Your task to perform on an android device: turn off location Image 0: 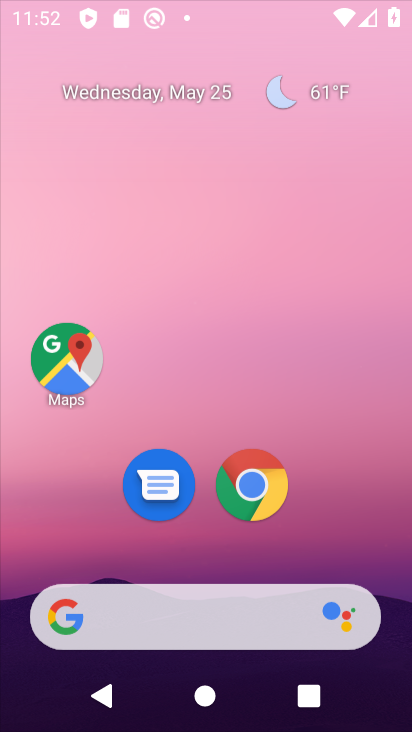
Step 0: click (356, 533)
Your task to perform on an android device: turn off location Image 1: 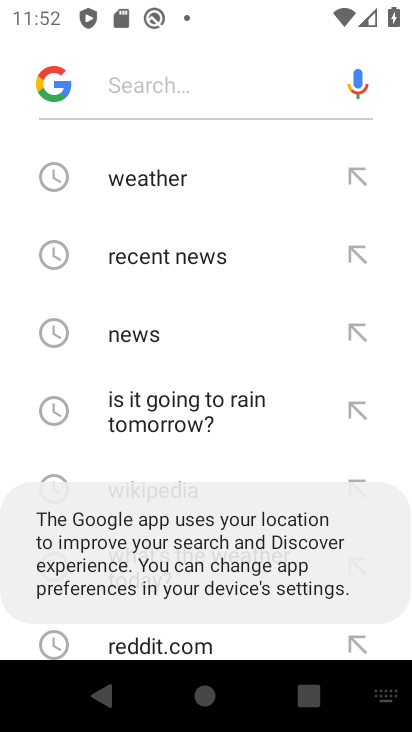
Step 1: press back button
Your task to perform on an android device: turn off location Image 2: 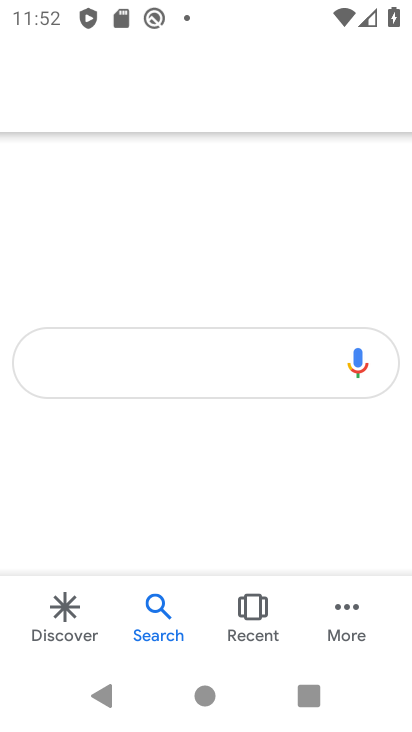
Step 2: press home button
Your task to perform on an android device: turn off location Image 3: 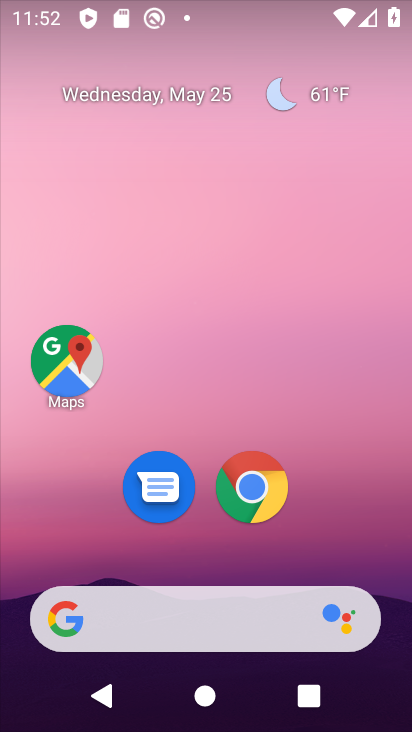
Step 3: drag from (225, 623) to (158, 43)
Your task to perform on an android device: turn off location Image 4: 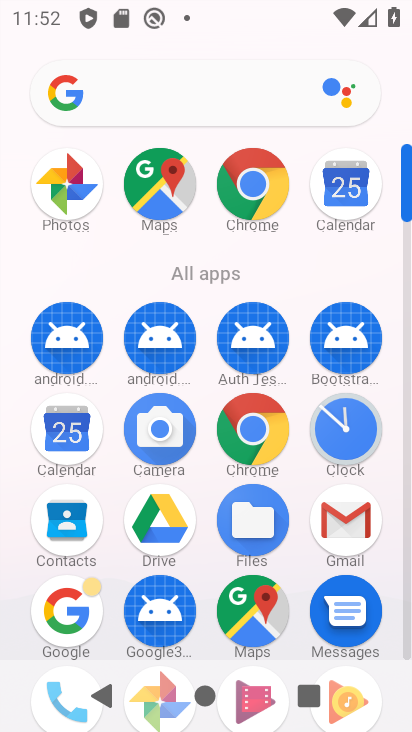
Step 4: drag from (291, 516) to (319, 165)
Your task to perform on an android device: turn off location Image 5: 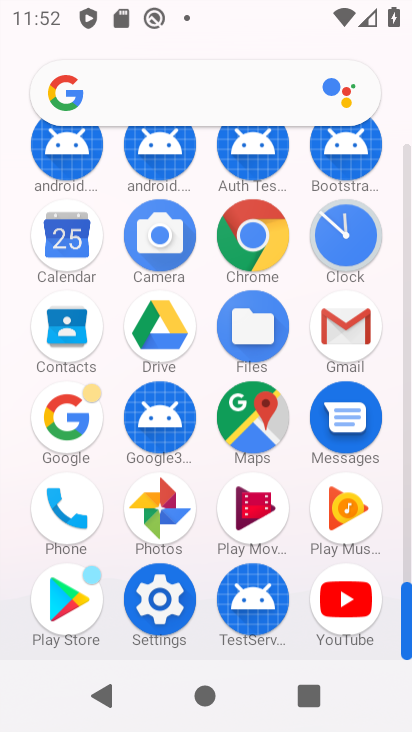
Step 5: drag from (314, 538) to (237, 123)
Your task to perform on an android device: turn off location Image 6: 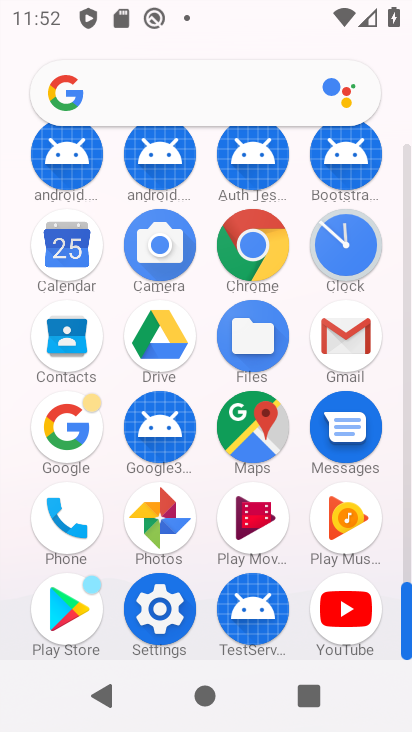
Step 6: click (176, 612)
Your task to perform on an android device: turn off location Image 7: 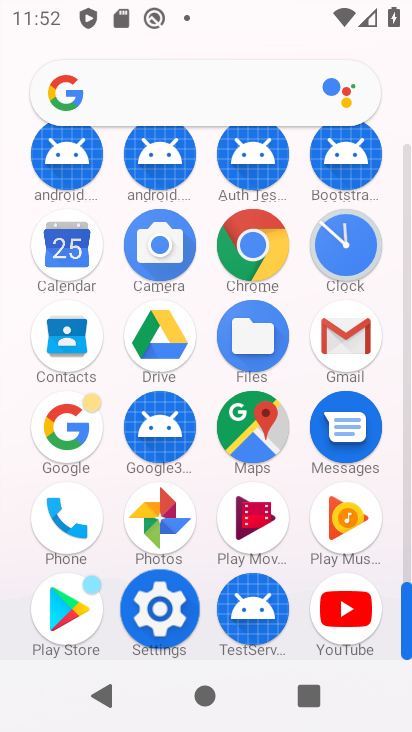
Step 7: click (176, 612)
Your task to perform on an android device: turn off location Image 8: 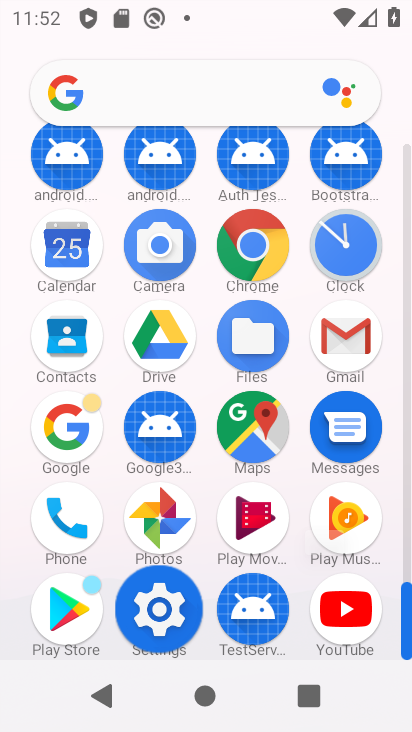
Step 8: click (176, 612)
Your task to perform on an android device: turn off location Image 9: 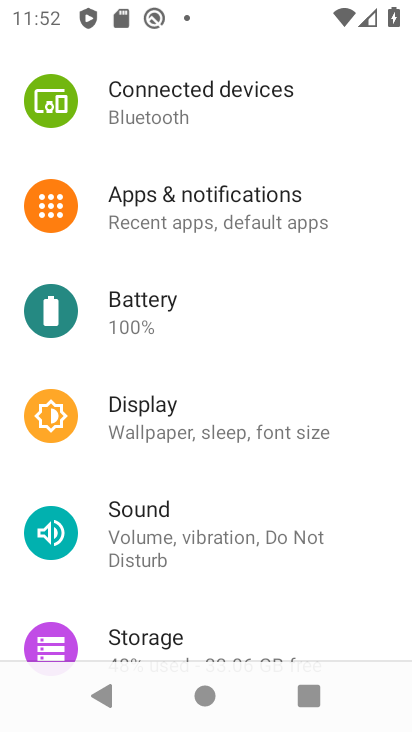
Step 9: drag from (95, 403) to (129, 184)
Your task to perform on an android device: turn off location Image 10: 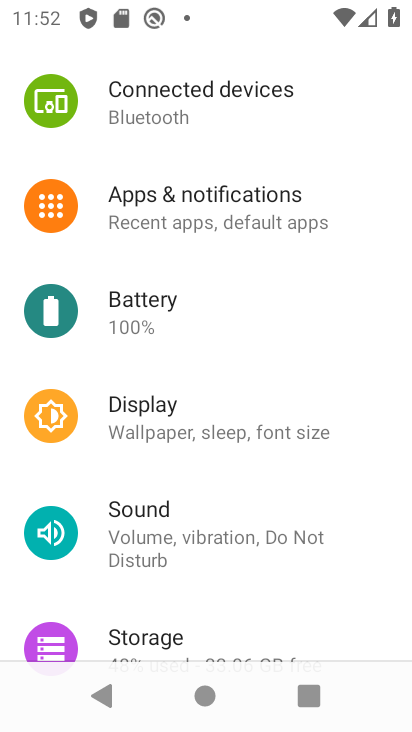
Step 10: drag from (168, 467) to (166, 276)
Your task to perform on an android device: turn off location Image 11: 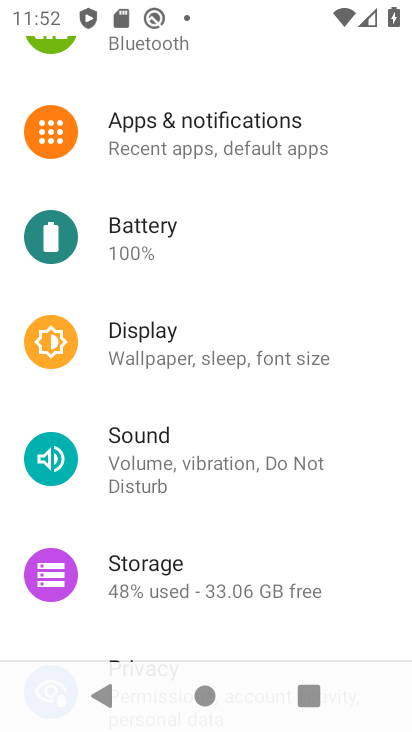
Step 11: drag from (143, 221) to (144, 580)
Your task to perform on an android device: turn off location Image 12: 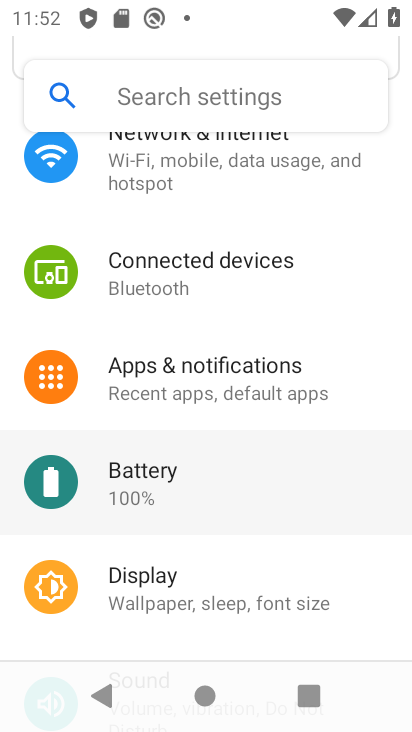
Step 12: drag from (163, 235) to (179, 465)
Your task to perform on an android device: turn off location Image 13: 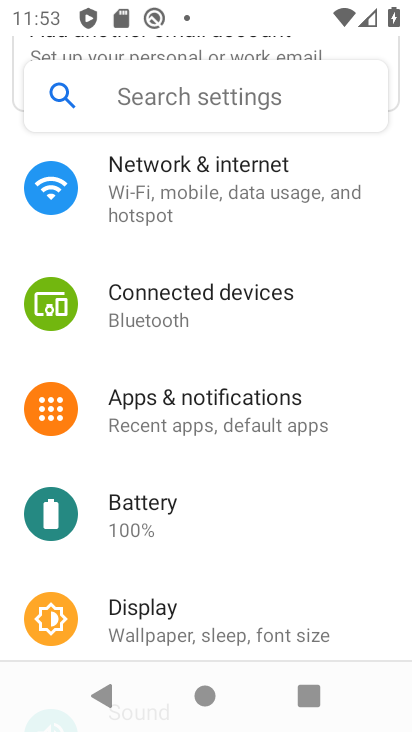
Step 13: drag from (163, 251) to (169, 638)
Your task to perform on an android device: turn off location Image 14: 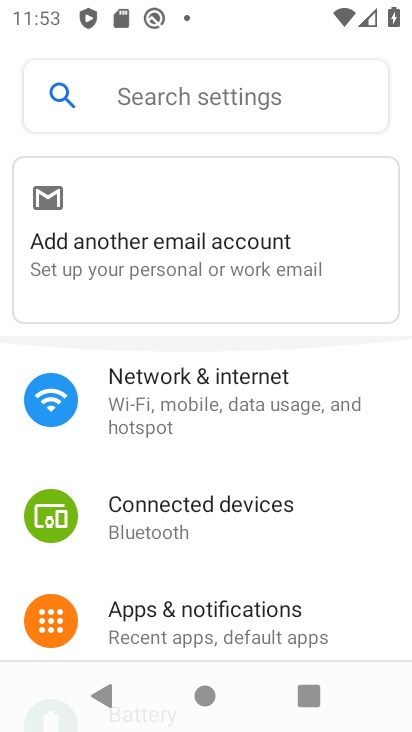
Step 14: click (187, 522)
Your task to perform on an android device: turn off location Image 15: 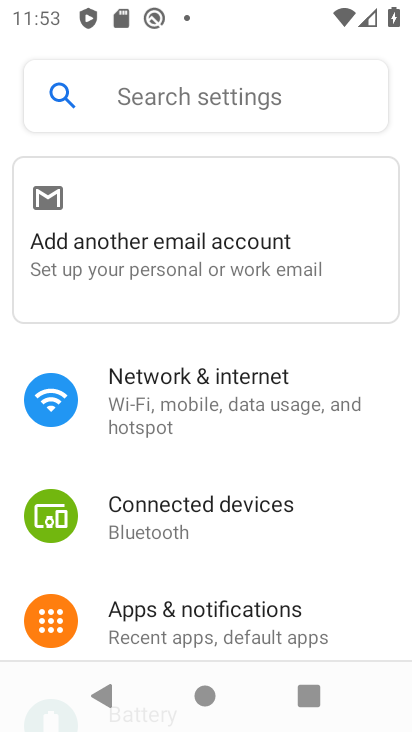
Step 15: drag from (196, 542) to (195, 232)
Your task to perform on an android device: turn off location Image 16: 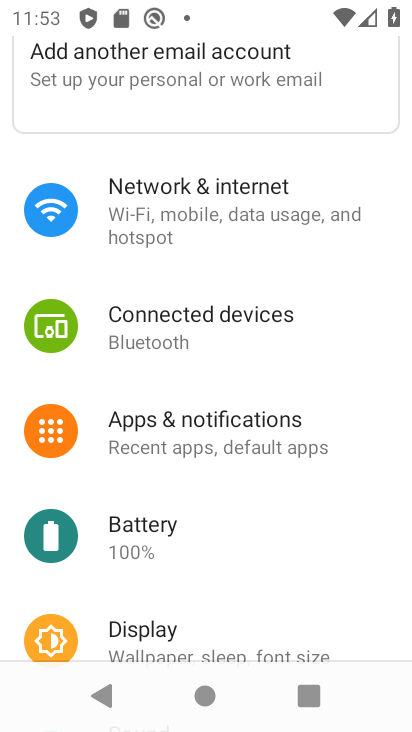
Step 16: drag from (212, 533) to (227, 258)
Your task to perform on an android device: turn off location Image 17: 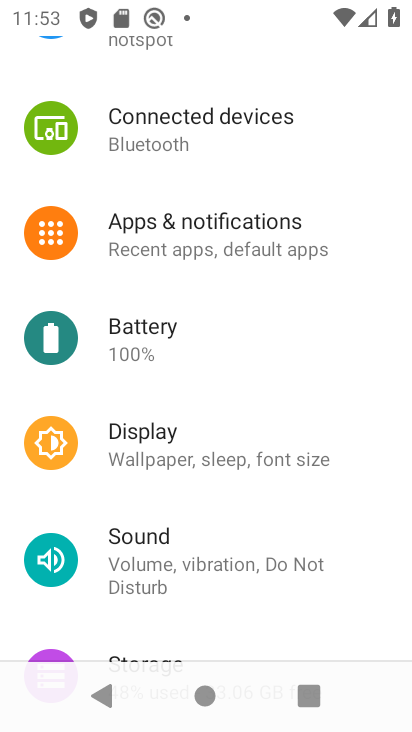
Step 17: drag from (262, 533) to (251, 184)
Your task to perform on an android device: turn off location Image 18: 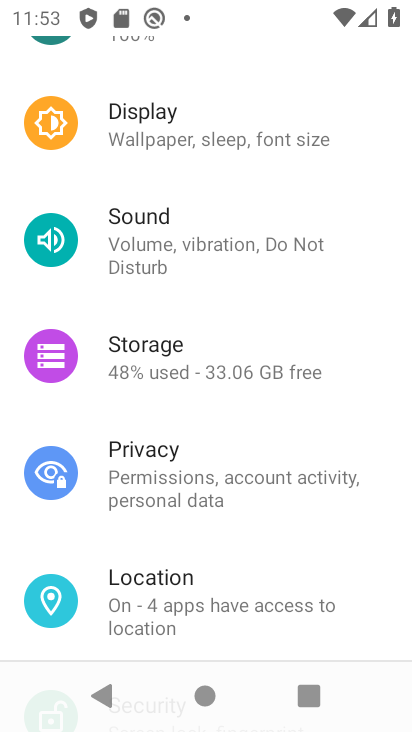
Step 18: click (273, 129)
Your task to perform on an android device: turn off location Image 19: 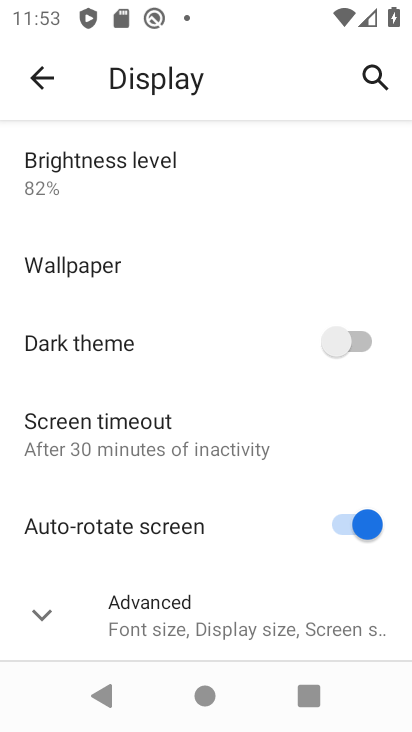
Step 19: click (168, 596)
Your task to perform on an android device: turn off location Image 20: 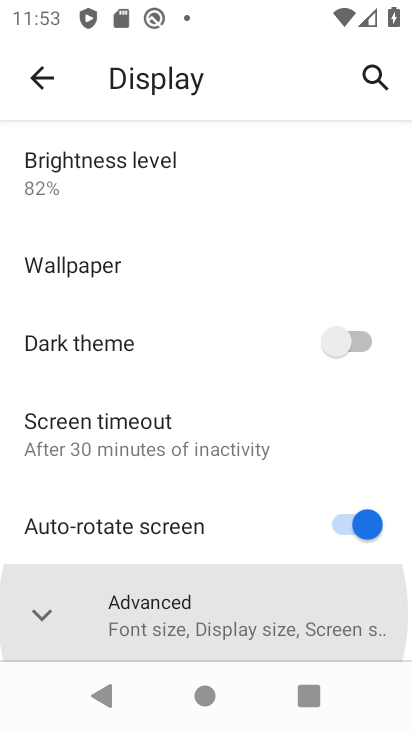
Step 20: click (167, 596)
Your task to perform on an android device: turn off location Image 21: 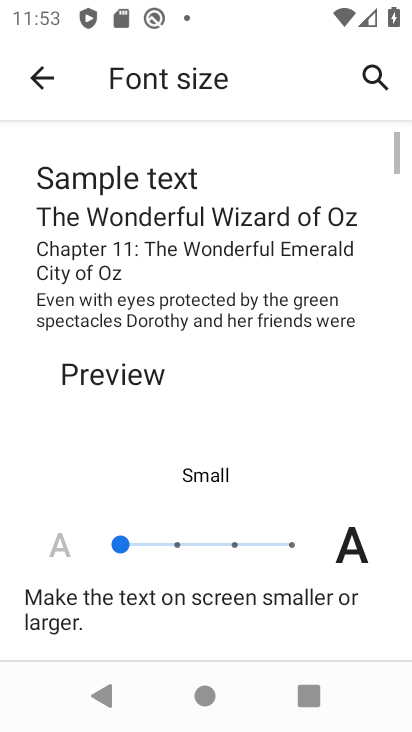
Step 21: click (42, 76)
Your task to perform on an android device: turn off location Image 22: 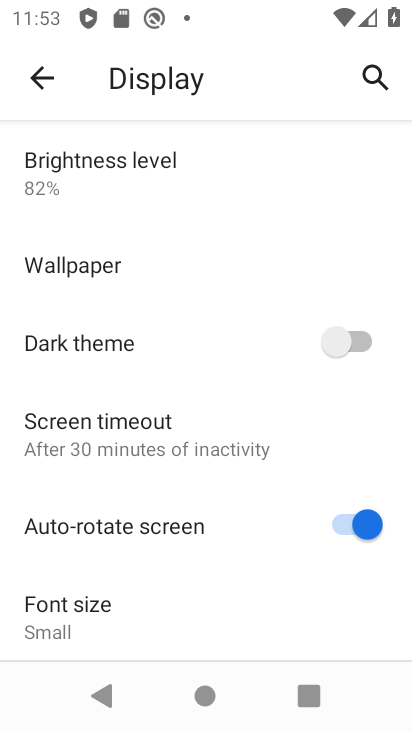
Step 22: click (42, 77)
Your task to perform on an android device: turn off location Image 23: 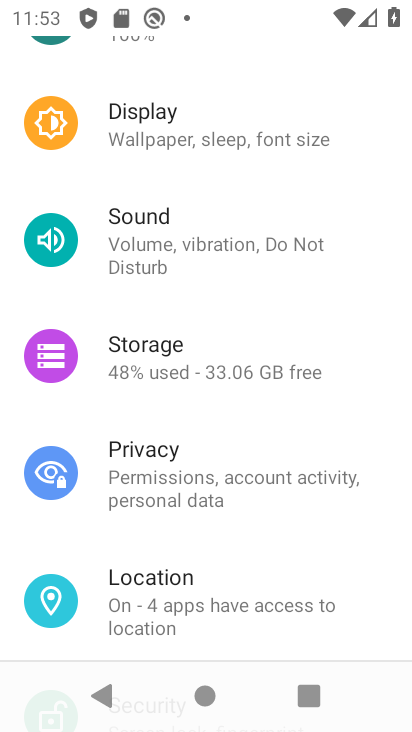
Step 23: click (149, 591)
Your task to perform on an android device: turn off location Image 24: 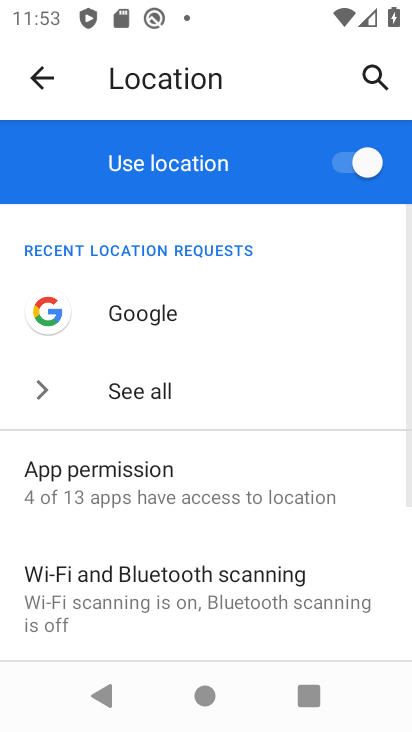
Step 24: click (369, 172)
Your task to perform on an android device: turn off location Image 25: 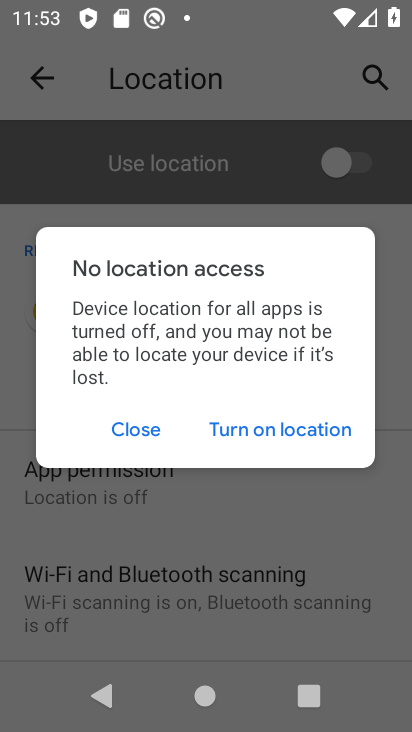
Step 25: task complete